Your task to perform on an android device: Go to network settings Image 0: 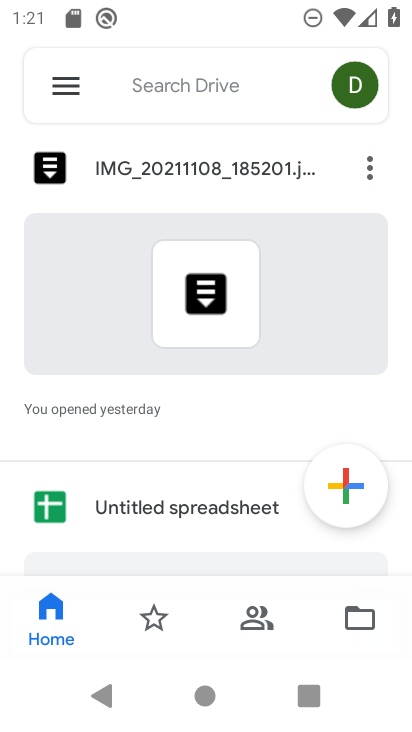
Step 0: press home button
Your task to perform on an android device: Go to network settings Image 1: 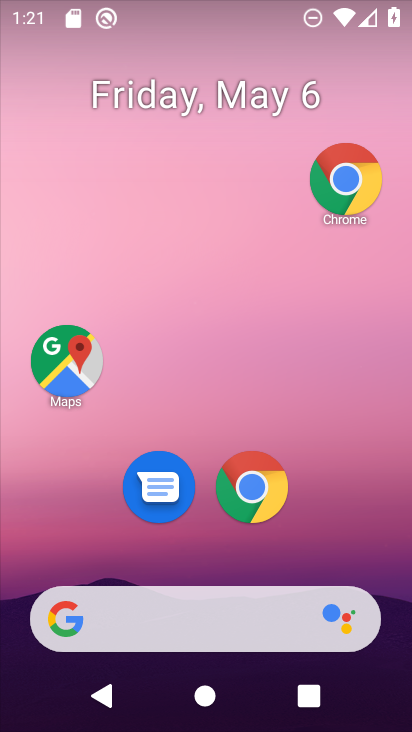
Step 1: drag from (272, 550) to (267, 168)
Your task to perform on an android device: Go to network settings Image 2: 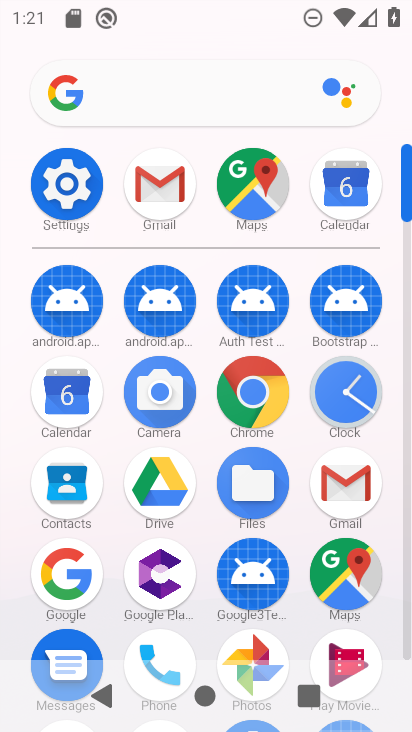
Step 2: click (76, 193)
Your task to perform on an android device: Go to network settings Image 3: 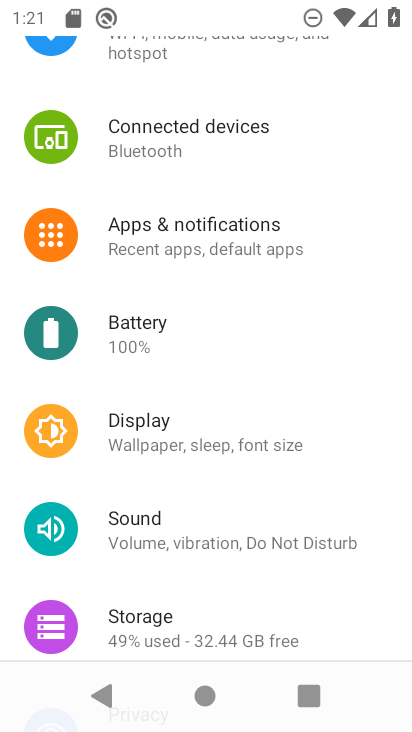
Step 3: drag from (142, 328) to (251, 610)
Your task to perform on an android device: Go to network settings Image 4: 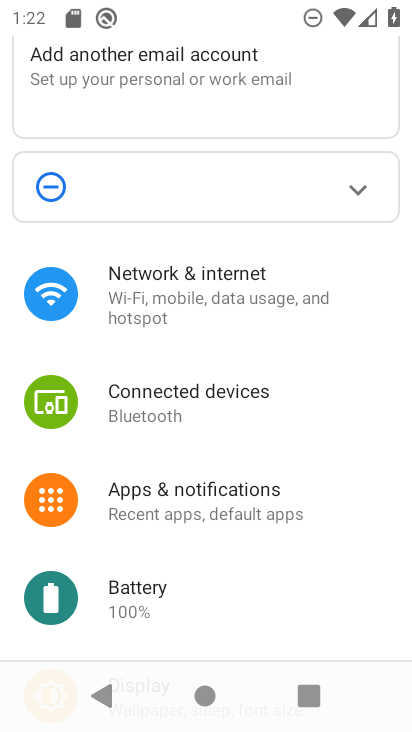
Step 4: click (281, 294)
Your task to perform on an android device: Go to network settings Image 5: 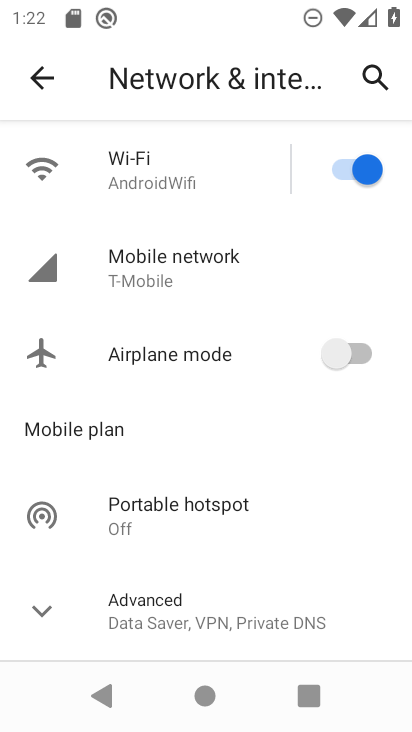
Step 5: task complete